Your task to perform on an android device: Open Android settings Image 0: 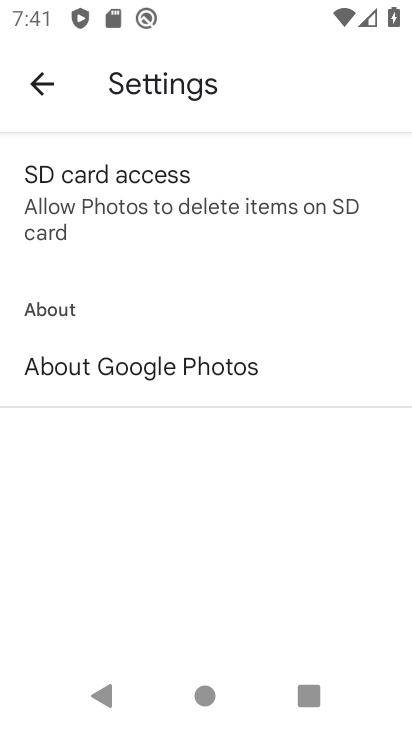
Step 0: press home button
Your task to perform on an android device: Open Android settings Image 1: 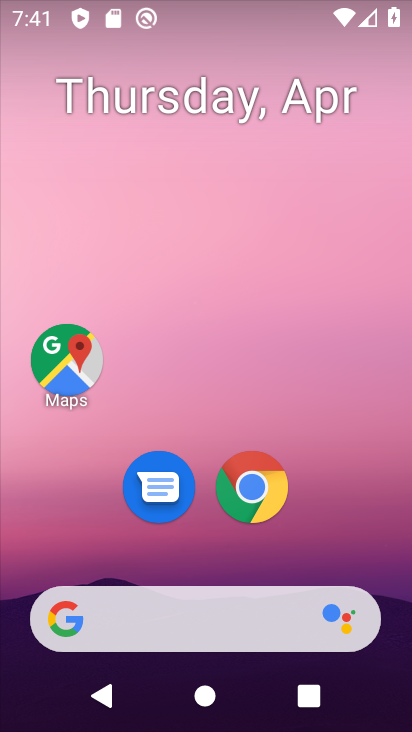
Step 1: drag from (364, 505) to (268, 81)
Your task to perform on an android device: Open Android settings Image 2: 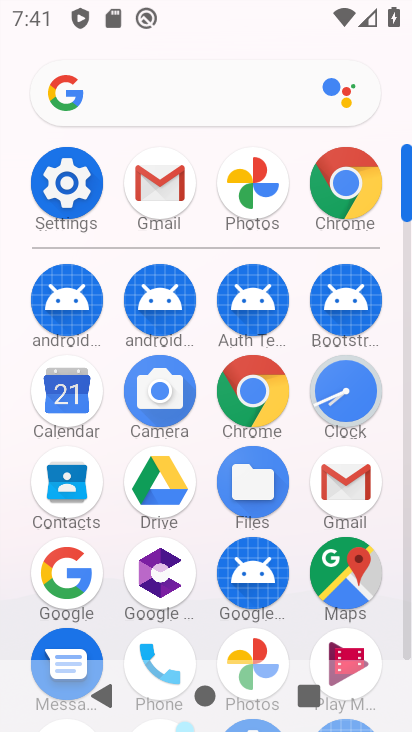
Step 2: click (47, 188)
Your task to perform on an android device: Open Android settings Image 3: 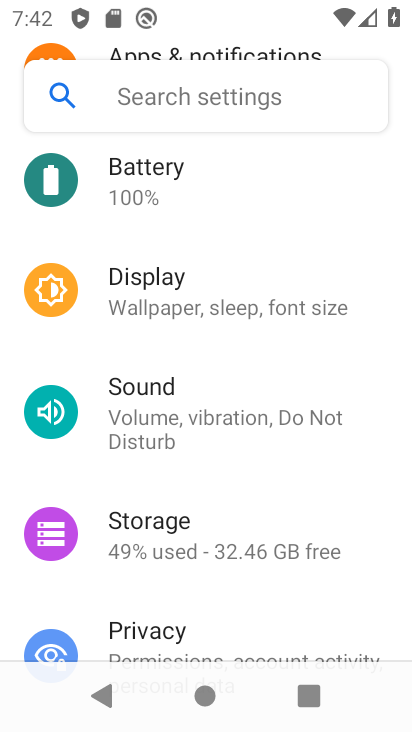
Step 3: drag from (203, 599) to (240, 125)
Your task to perform on an android device: Open Android settings Image 4: 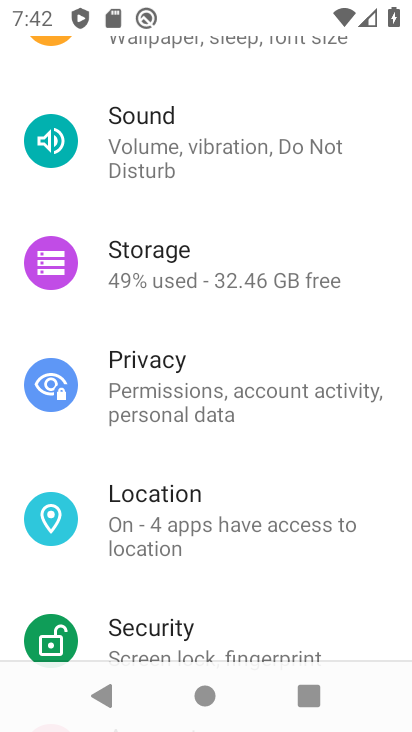
Step 4: drag from (223, 609) to (297, 93)
Your task to perform on an android device: Open Android settings Image 5: 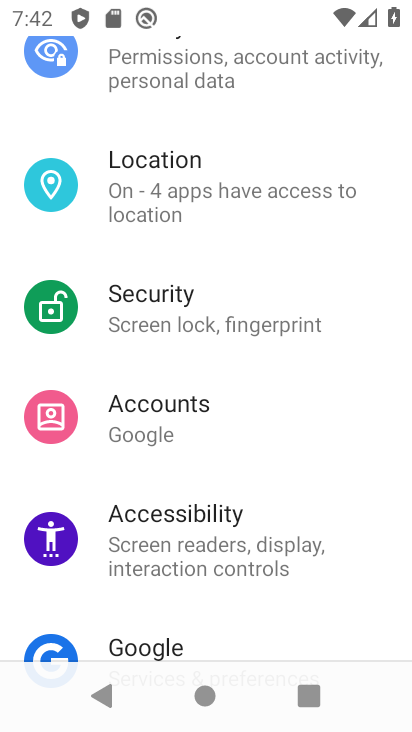
Step 5: drag from (244, 638) to (290, 83)
Your task to perform on an android device: Open Android settings Image 6: 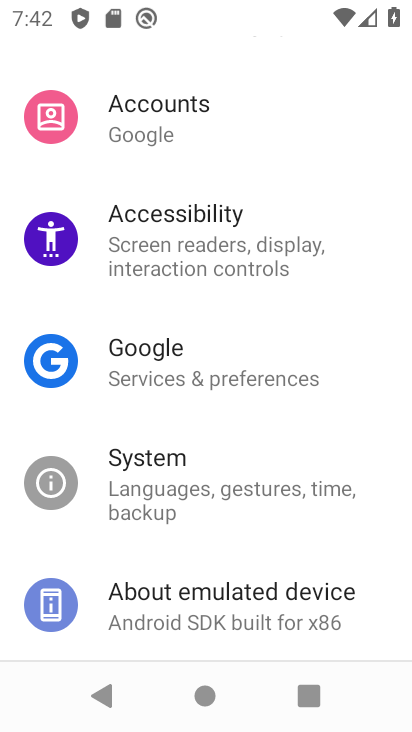
Step 6: click (225, 624)
Your task to perform on an android device: Open Android settings Image 7: 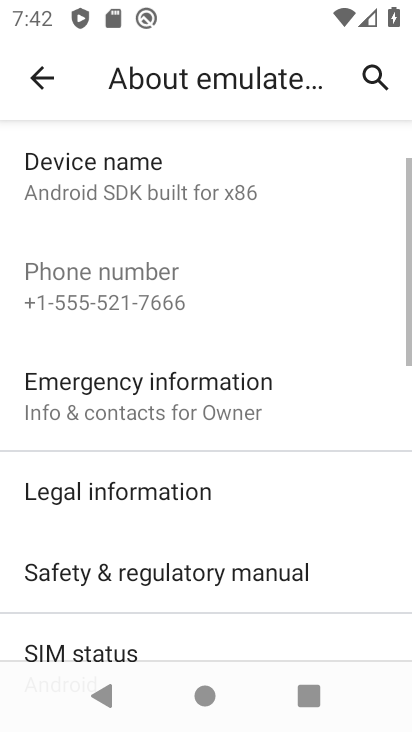
Step 7: drag from (225, 624) to (227, 160)
Your task to perform on an android device: Open Android settings Image 8: 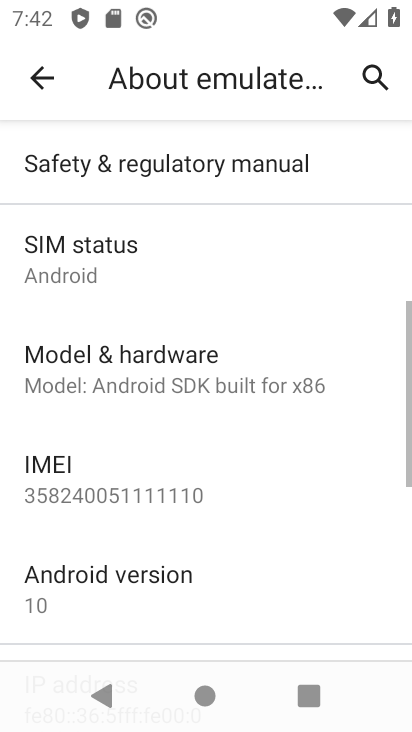
Step 8: click (201, 596)
Your task to perform on an android device: Open Android settings Image 9: 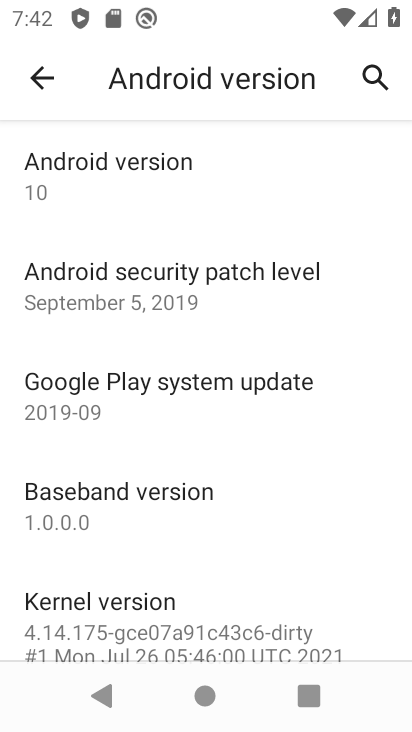
Step 9: task complete